Your task to perform on an android device: When is my next appointment? Image 0: 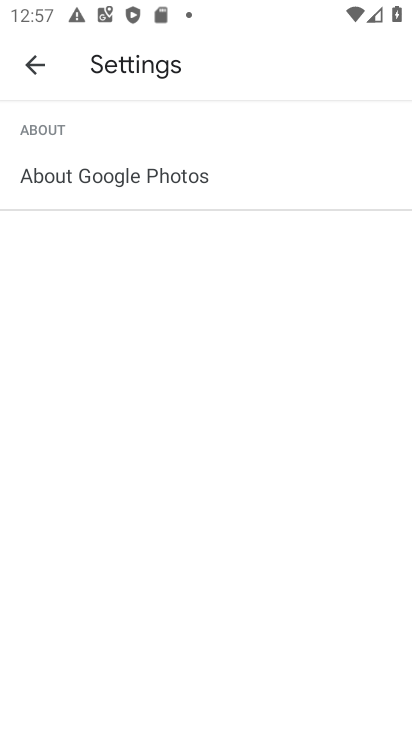
Step 0: press home button
Your task to perform on an android device: When is my next appointment? Image 1: 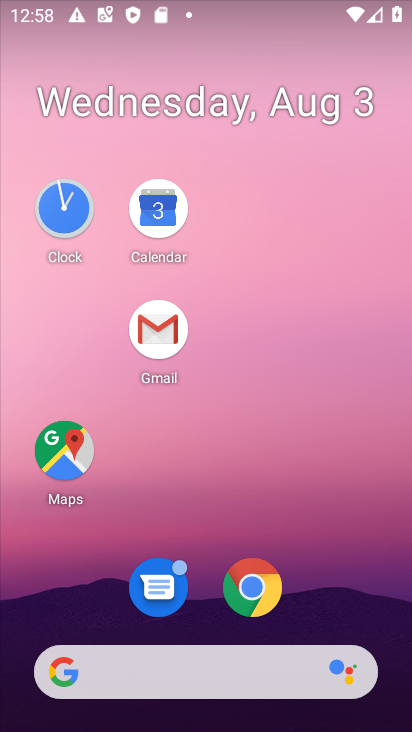
Step 1: click (172, 195)
Your task to perform on an android device: When is my next appointment? Image 2: 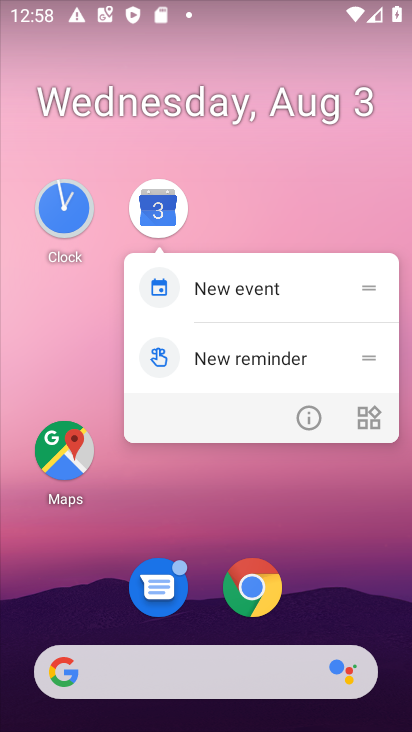
Step 2: click (172, 195)
Your task to perform on an android device: When is my next appointment? Image 3: 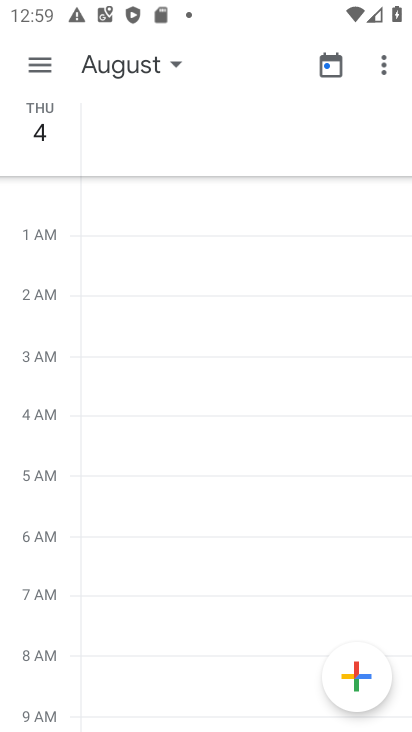
Step 3: click (55, 123)
Your task to perform on an android device: When is my next appointment? Image 4: 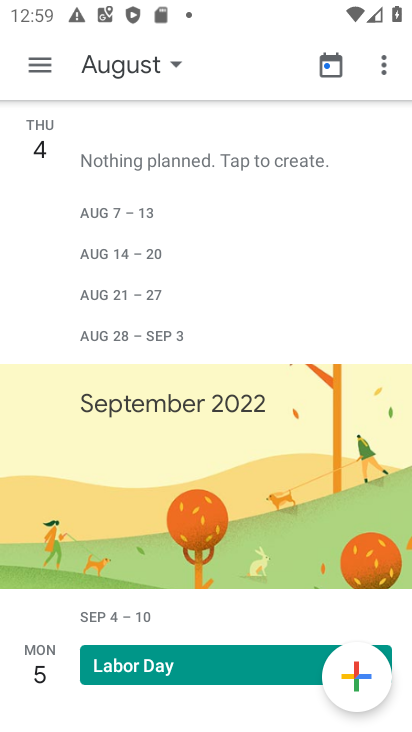
Step 4: task complete